Your task to perform on an android device: create a new album in the google photos Image 0: 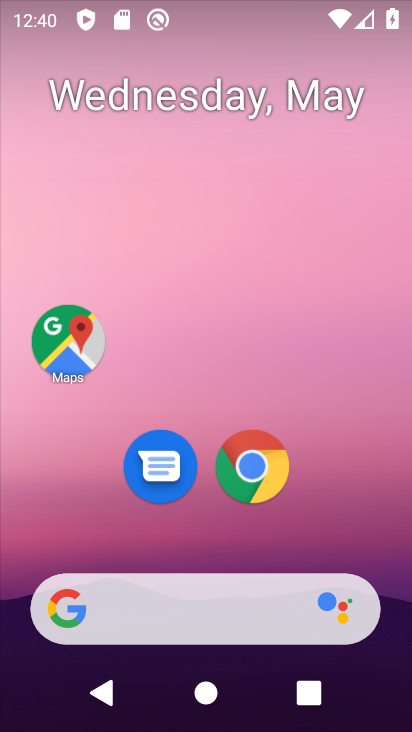
Step 0: drag from (222, 543) to (230, 153)
Your task to perform on an android device: create a new album in the google photos Image 1: 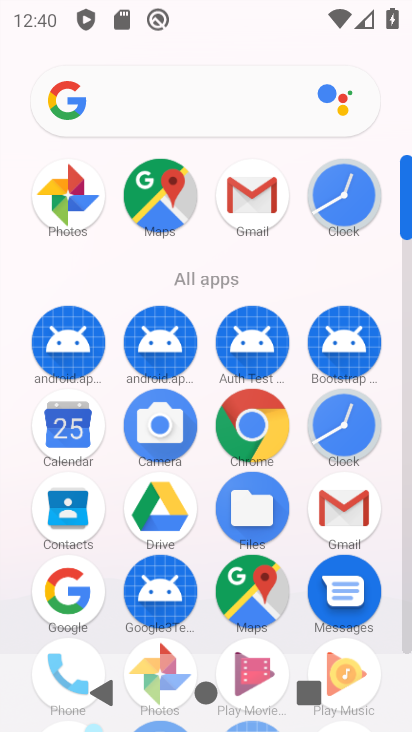
Step 1: drag from (208, 531) to (211, 239)
Your task to perform on an android device: create a new album in the google photos Image 2: 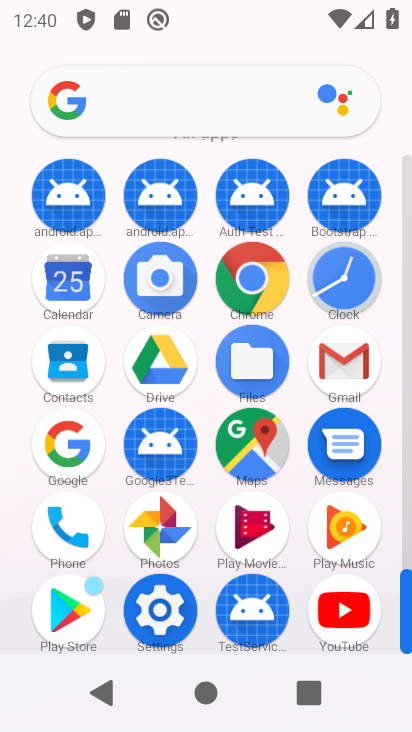
Step 2: click (158, 532)
Your task to perform on an android device: create a new album in the google photos Image 3: 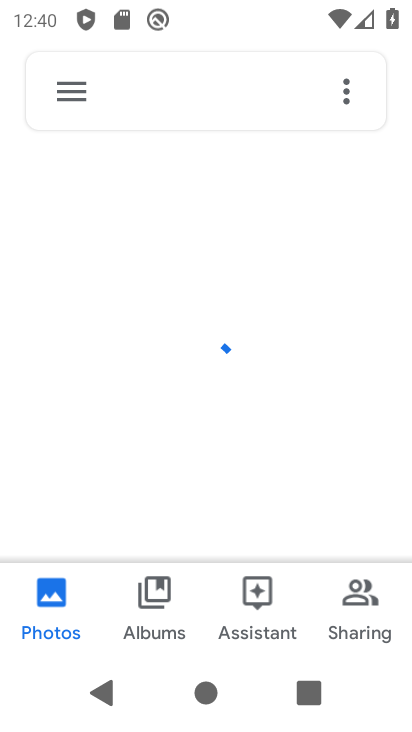
Step 3: click (352, 617)
Your task to perform on an android device: create a new album in the google photos Image 4: 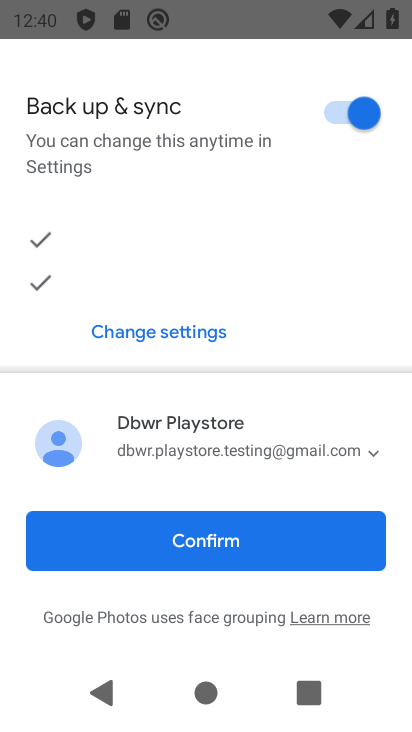
Step 4: click (227, 559)
Your task to perform on an android device: create a new album in the google photos Image 5: 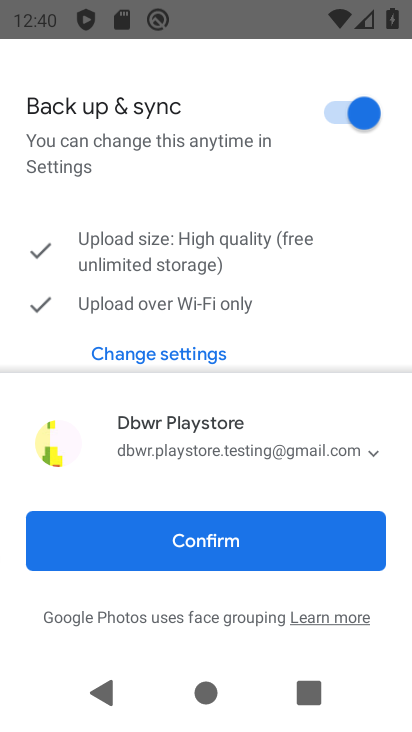
Step 5: click (219, 554)
Your task to perform on an android device: create a new album in the google photos Image 6: 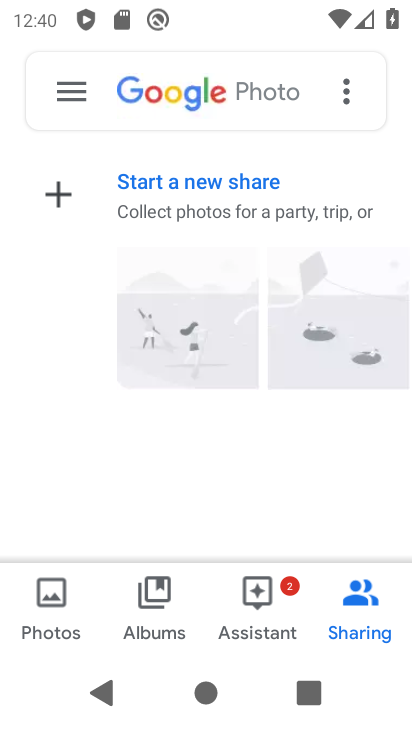
Step 6: click (156, 610)
Your task to perform on an android device: create a new album in the google photos Image 7: 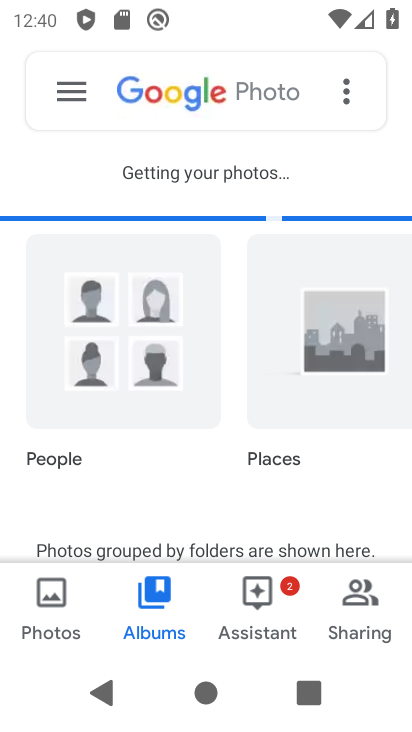
Step 7: task complete